Your task to perform on an android device: see sites visited before in the chrome app Image 0: 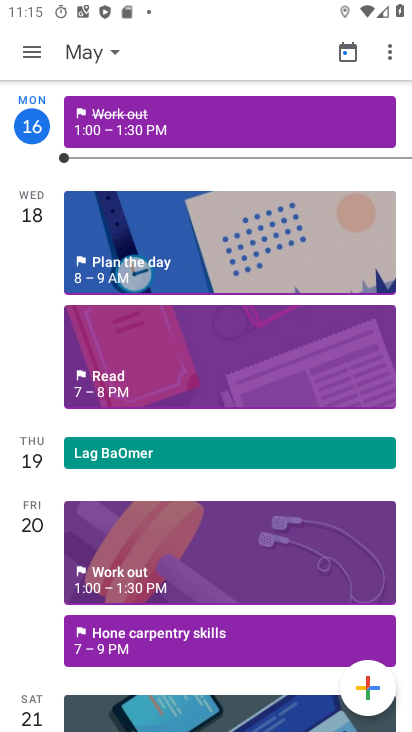
Step 0: press home button
Your task to perform on an android device: see sites visited before in the chrome app Image 1: 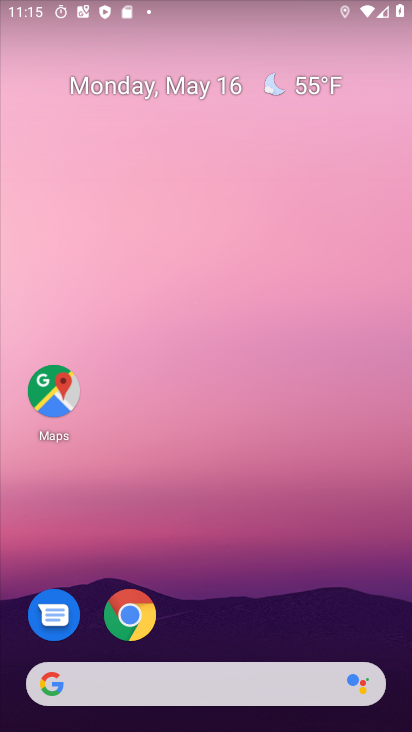
Step 1: click (122, 606)
Your task to perform on an android device: see sites visited before in the chrome app Image 2: 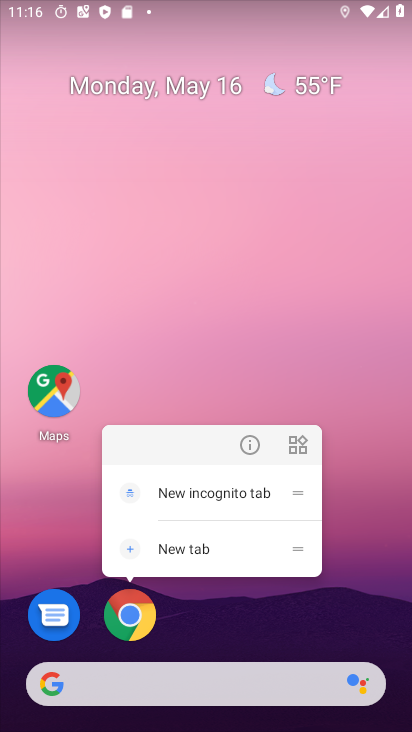
Step 2: click (120, 610)
Your task to perform on an android device: see sites visited before in the chrome app Image 3: 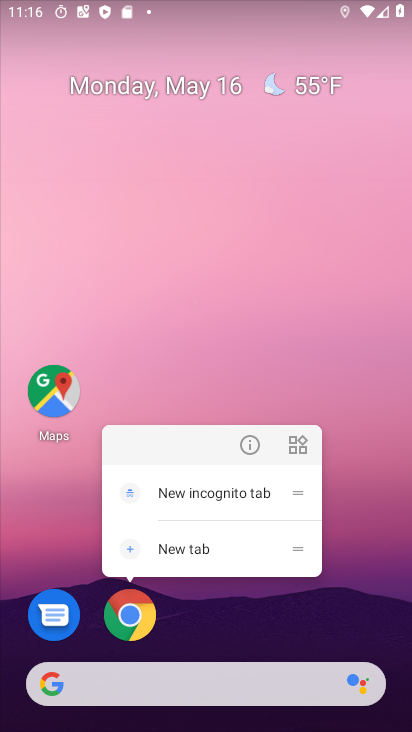
Step 3: click (128, 615)
Your task to perform on an android device: see sites visited before in the chrome app Image 4: 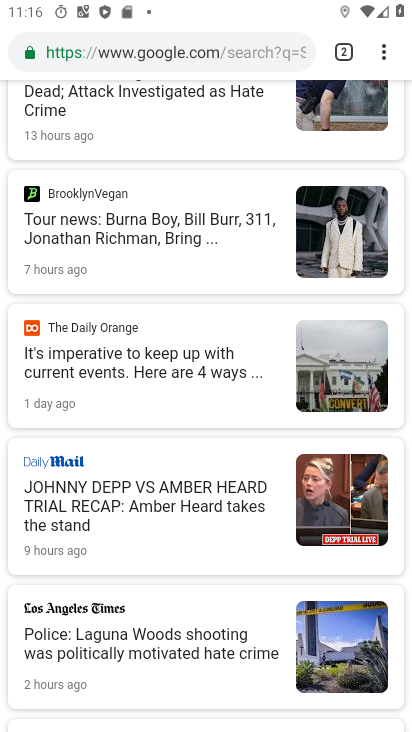
Step 4: drag from (380, 45) to (175, 577)
Your task to perform on an android device: see sites visited before in the chrome app Image 5: 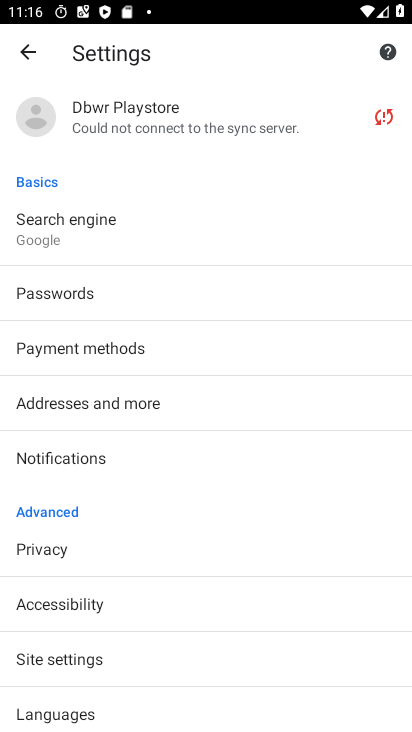
Step 5: click (72, 655)
Your task to perform on an android device: see sites visited before in the chrome app Image 6: 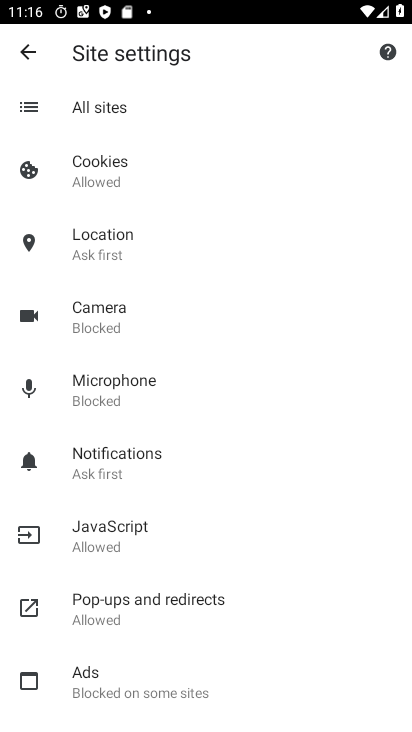
Step 6: click (189, 645)
Your task to perform on an android device: see sites visited before in the chrome app Image 7: 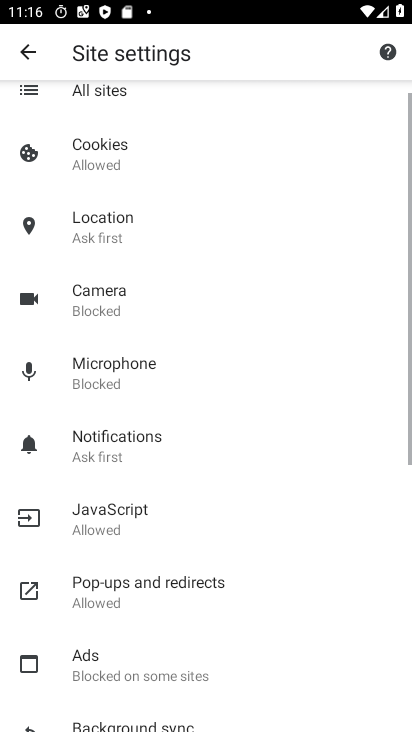
Step 7: drag from (222, 172) to (214, 513)
Your task to perform on an android device: see sites visited before in the chrome app Image 8: 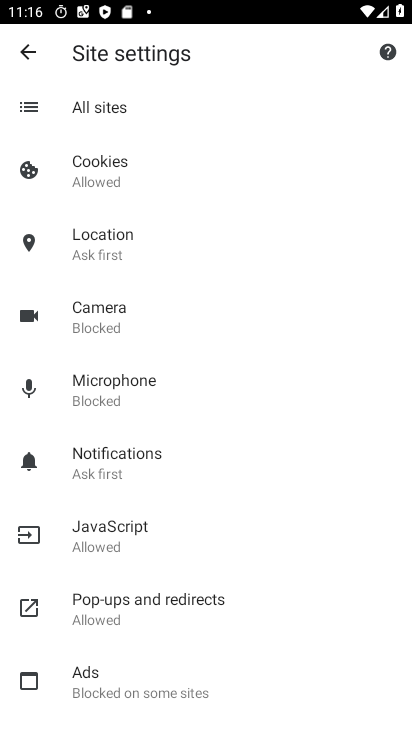
Step 8: click (112, 109)
Your task to perform on an android device: see sites visited before in the chrome app Image 9: 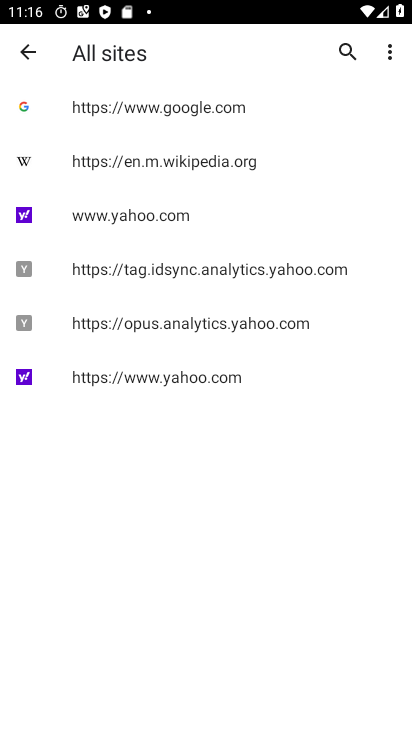
Step 9: click (213, 163)
Your task to perform on an android device: see sites visited before in the chrome app Image 10: 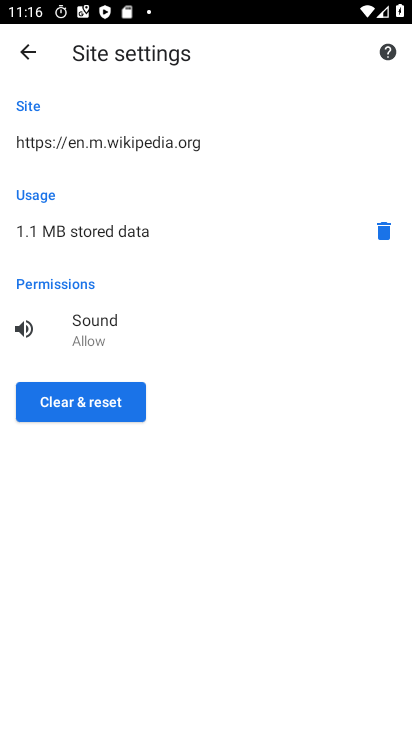
Step 10: task complete